Your task to perform on an android device: Open Google Chrome and click the shortcut for Amazon.com Image 0: 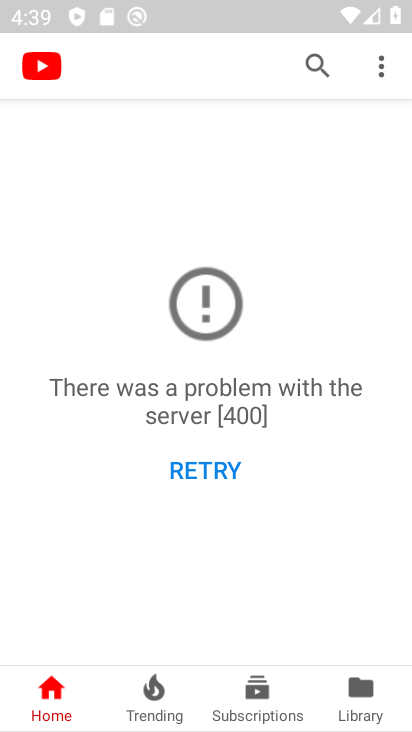
Step 0: press home button
Your task to perform on an android device: Open Google Chrome and click the shortcut for Amazon.com Image 1: 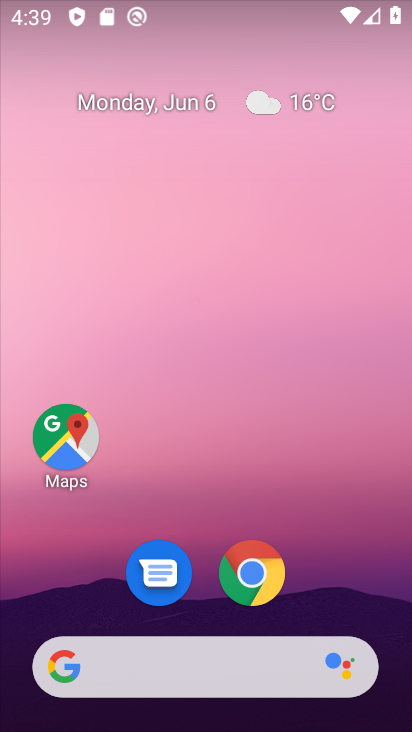
Step 1: click (253, 570)
Your task to perform on an android device: Open Google Chrome and click the shortcut for Amazon.com Image 2: 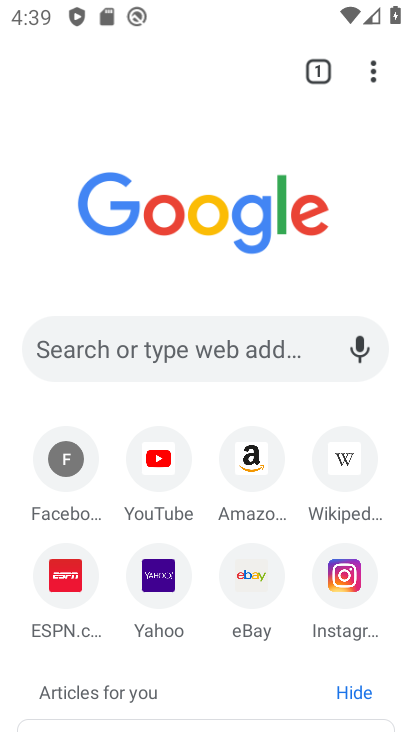
Step 2: click (276, 465)
Your task to perform on an android device: Open Google Chrome and click the shortcut for Amazon.com Image 3: 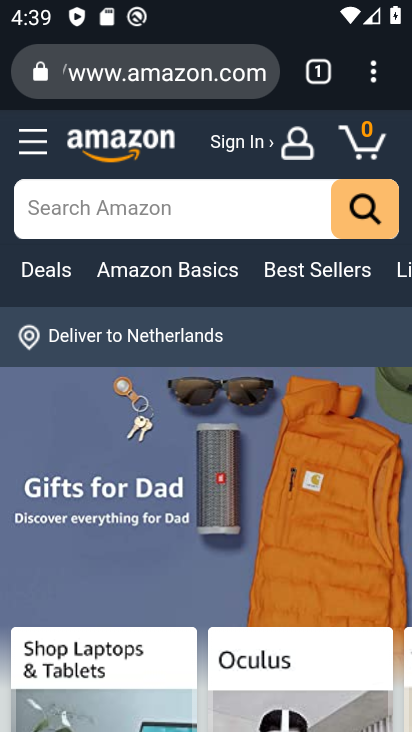
Step 3: click (377, 69)
Your task to perform on an android device: Open Google Chrome and click the shortcut for Amazon.com Image 4: 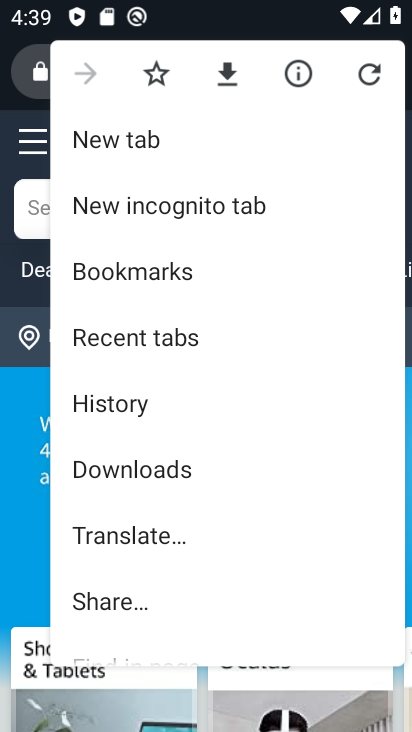
Step 4: drag from (203, 498) to (308, 212)
Your task to perform on an android device: Open Google Chrome and click the shortcut for Amazon.com Image 5: 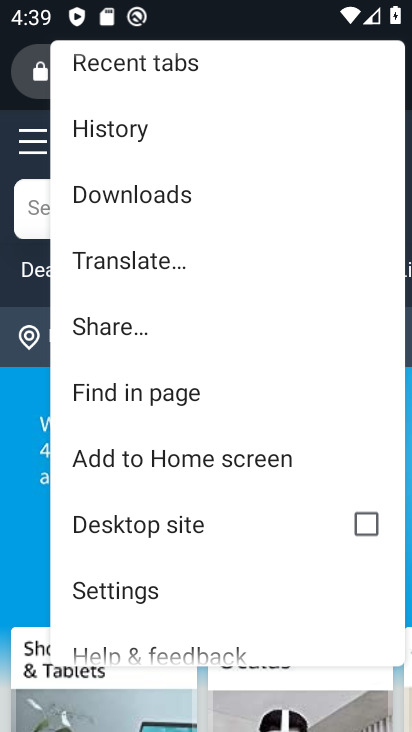
Step 5: click (283, 470)
Your task to perform on an android device: Open Google Chrome and click the shortcut for Amazon.com Image 6: 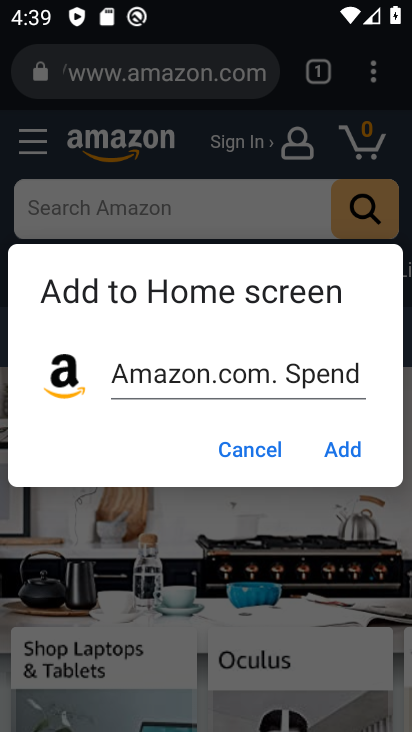
Step 6: click (342, 451)
Your task to perform on an android device: Open Google Chrome and click the shortcut for Amazon.com Image 7: 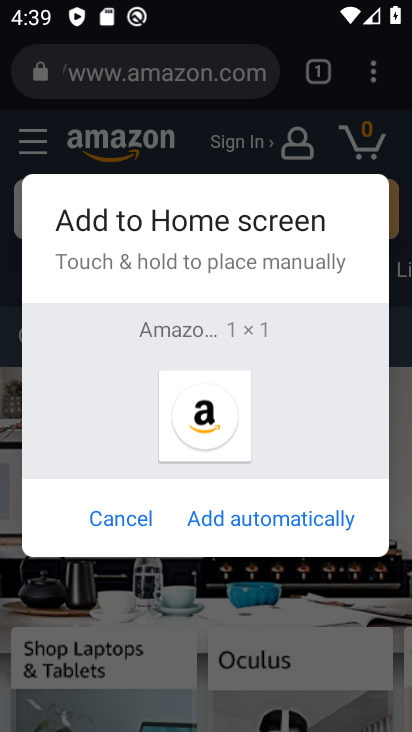
Step 7: click (296, 503)
Your task to perform on an android device: Open Google Chrome and click the shortcut for Amazon.com Image 8: 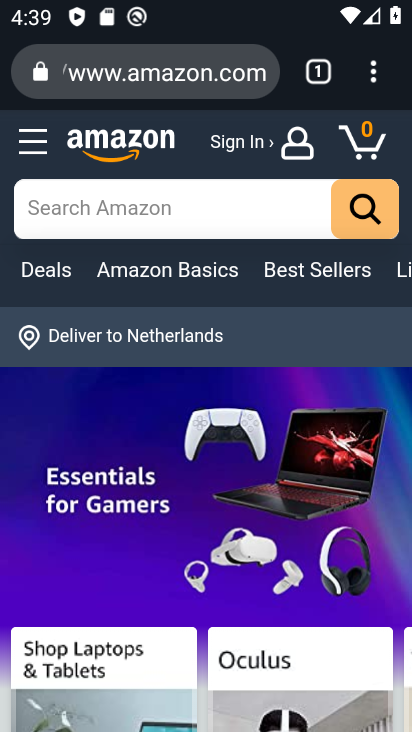
Step 8: task complete